Your task to perform on an android device: Open the web browser Image 0: 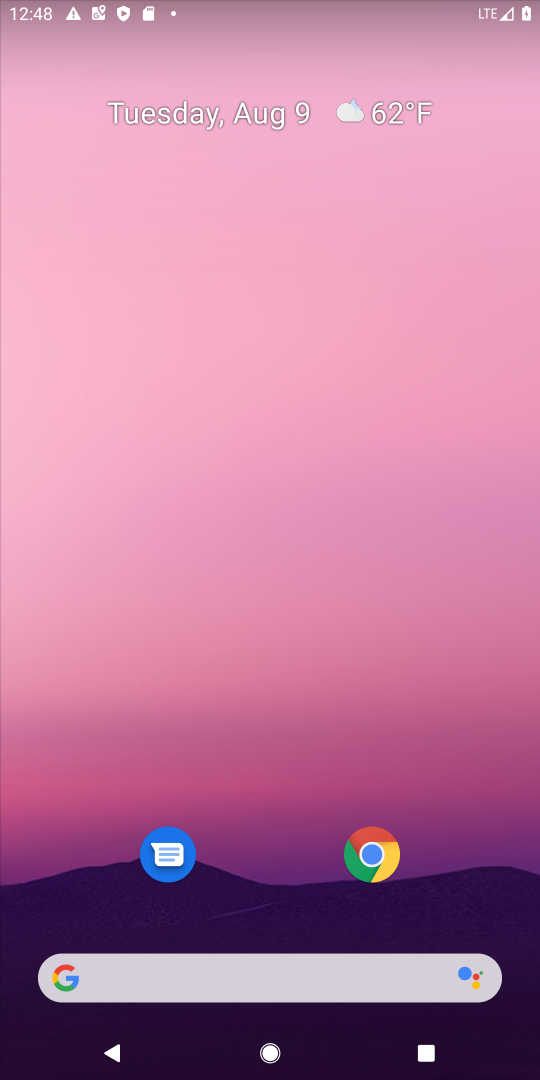
Step 0: click (387, 856)
Your task to perform on an android device: Open the web browser Image 1: 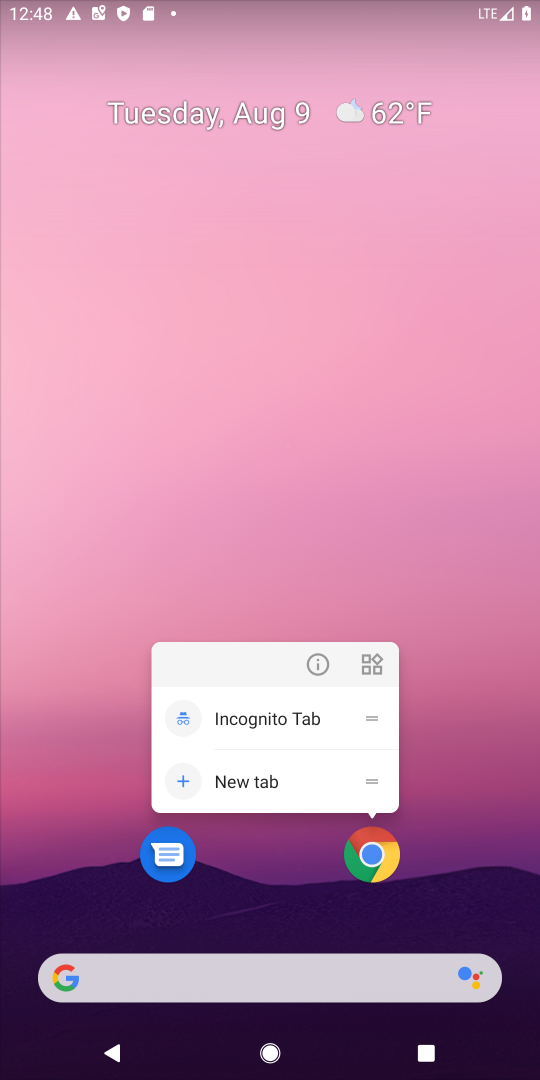
Step 1: click (373, 847)
Your task to perform on an android device: Open the web browser Image 2: 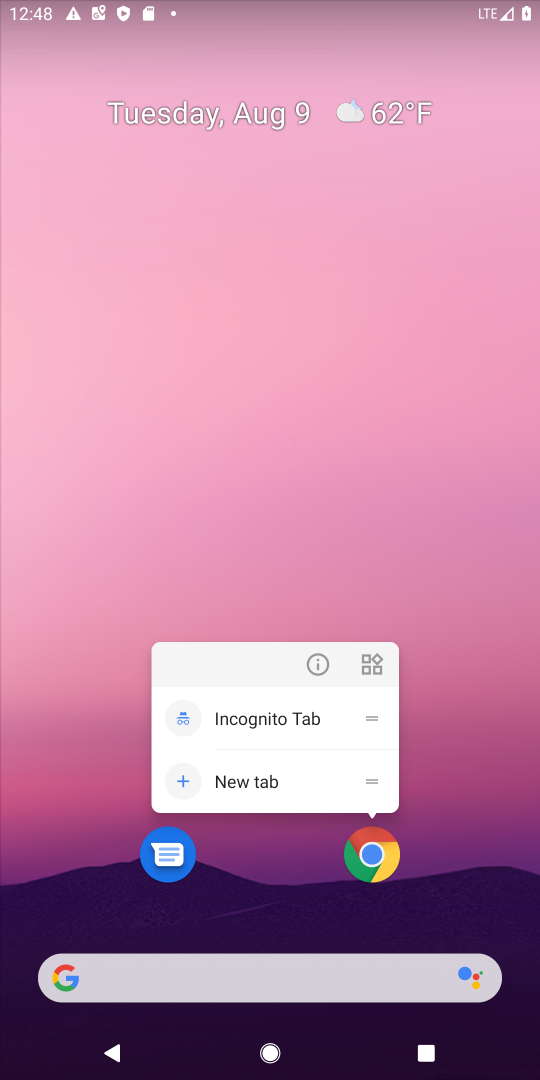
Step 2: click (372, 850)
Your task to perform on an android device: Open the web browser Image 3: 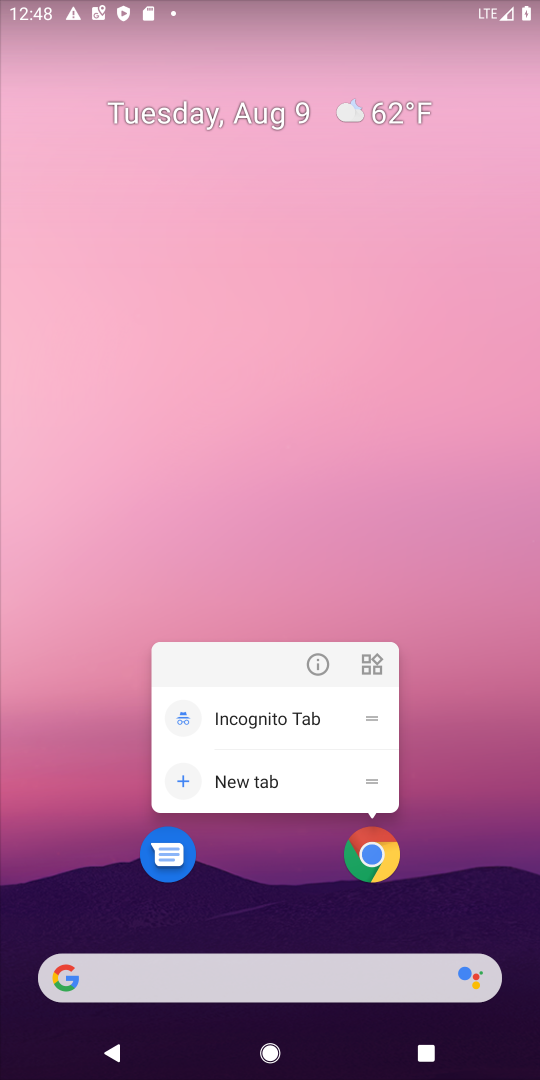
Step 3: click (375, 856)
Your task to perform on an android device: Open the web browser Image 4: 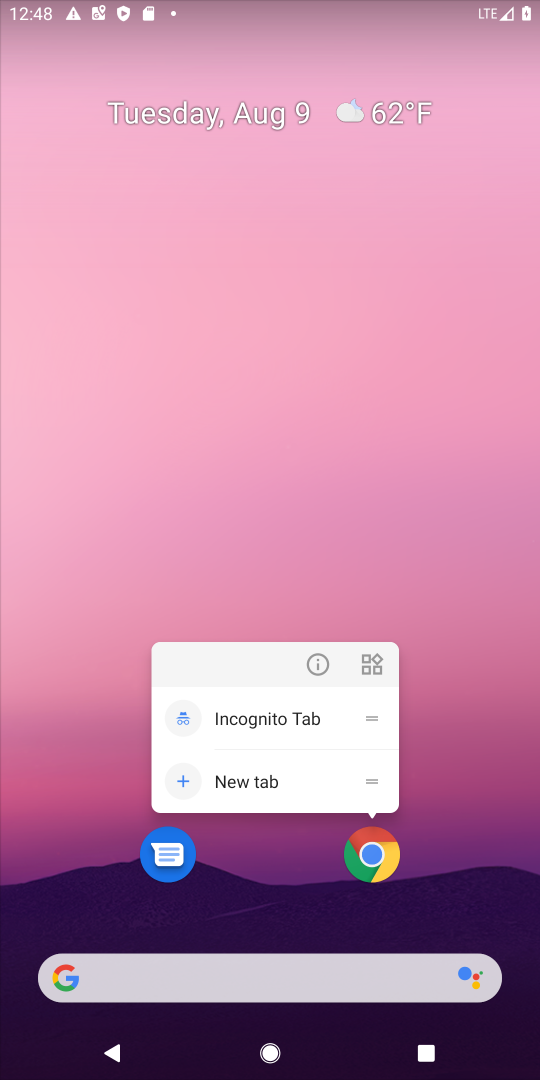
Step 4: click (378, 875)
Your task to perform on an android device: Open the web browser Image 5: 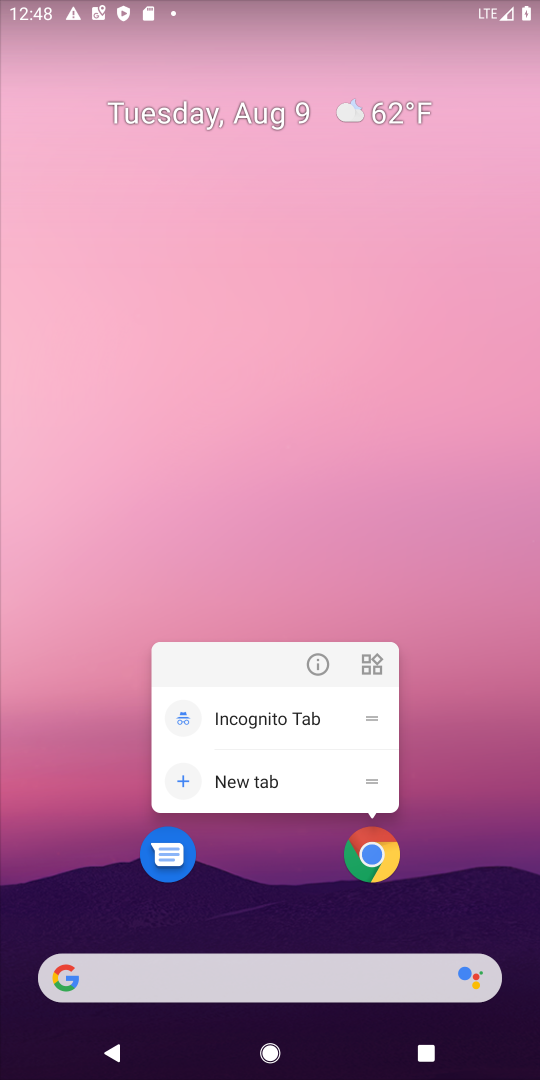
Step 5: click (373, 848)
Your task to perform on an android device: Open the web browser Image 6: 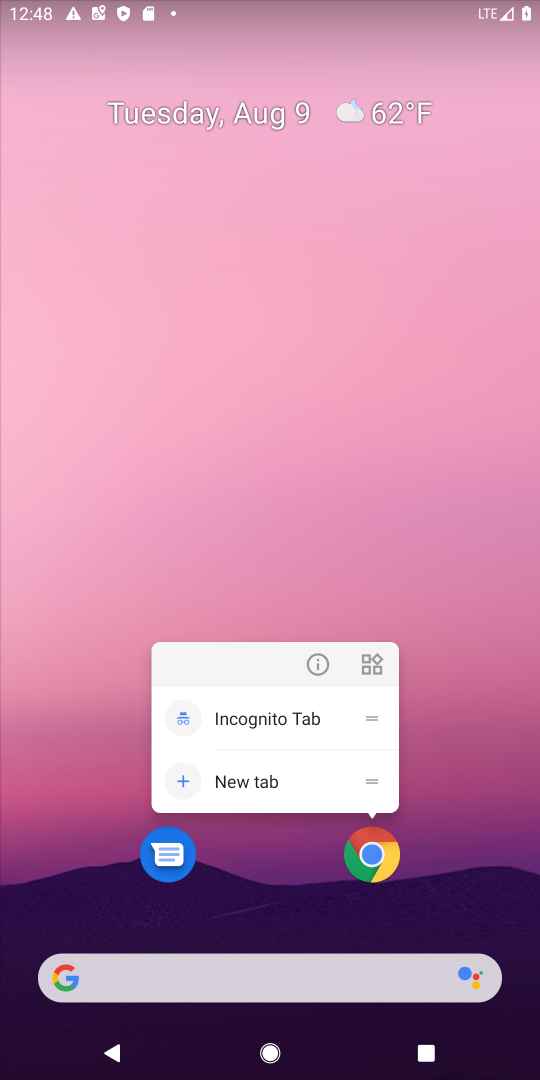
Step 6: click (375, 855)
Your task to perform on an android device: Open the web browser Image 7: 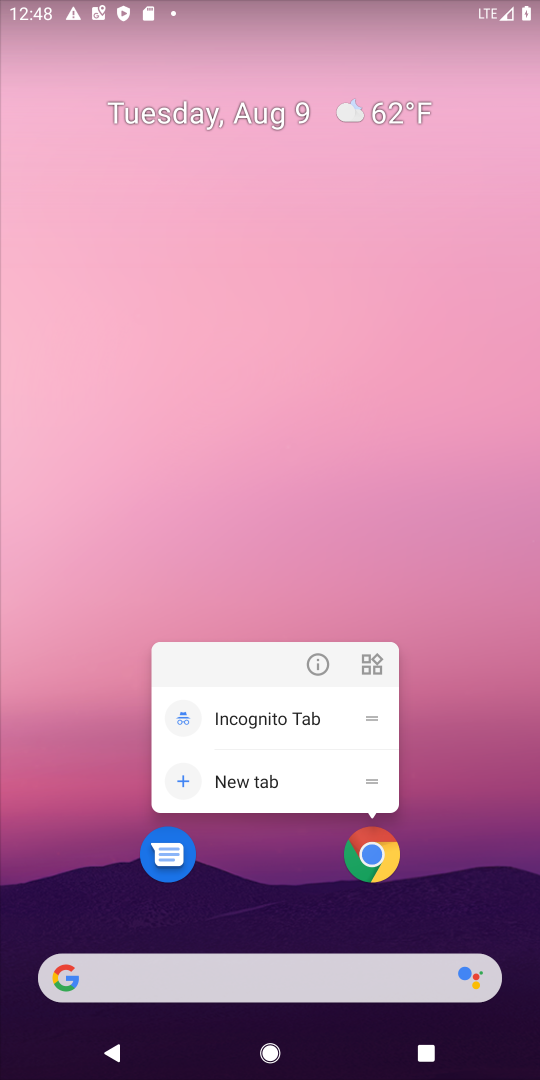
Step 7: click (380, 863)
Your task to perform on an android device: Open the web browser Image 8: 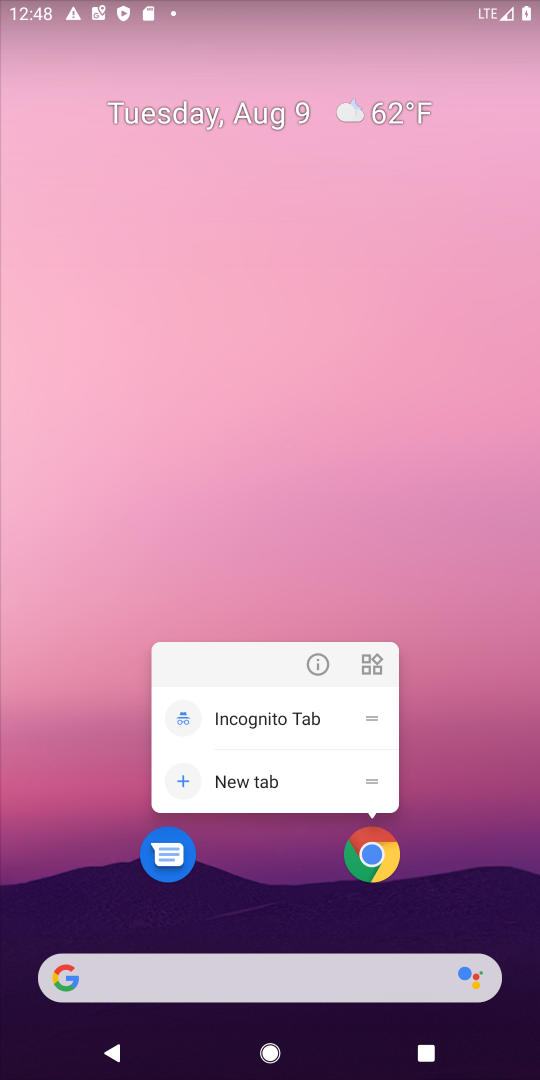
Step 8: click (367, 852)
Your task to perform on an android device: Open the web browser Image 9: 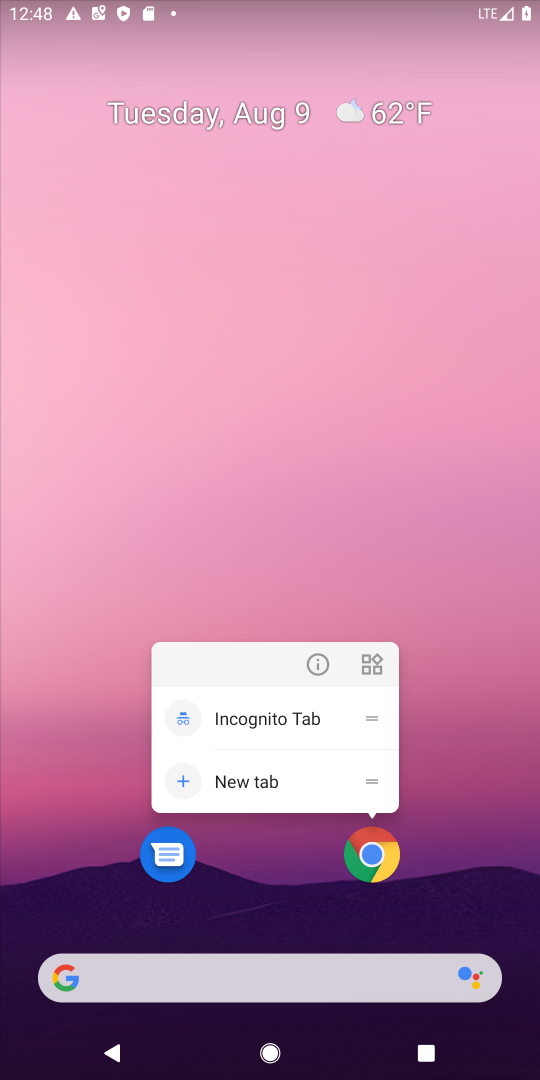
Step 9: click (304, 888)
Your task to perform on an android device: Open the web browser Image 10: 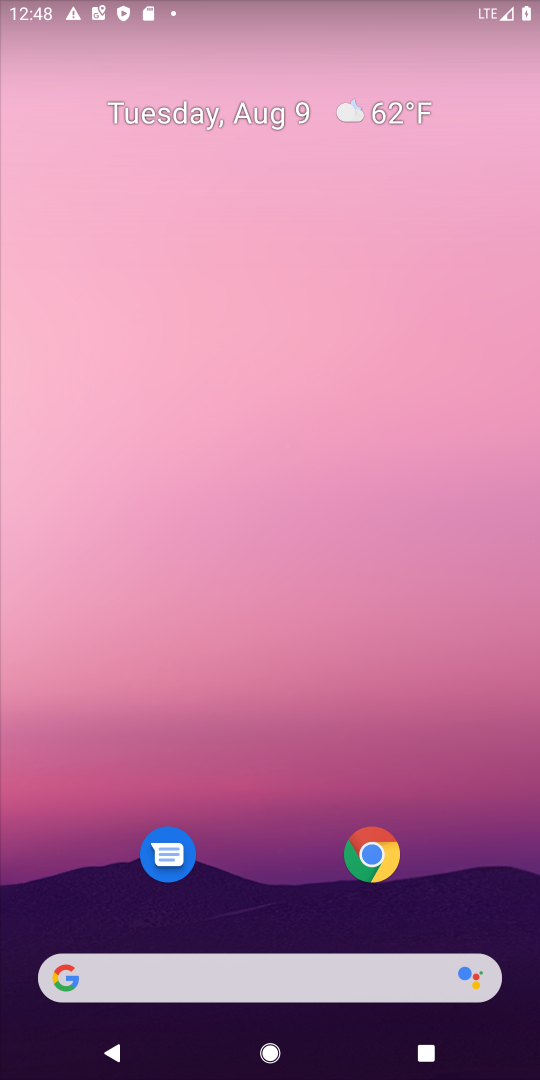
Step 10: drag from (255, 920) to (276, 13)
Your task to perform on an android device: Open the web browser Image 11: 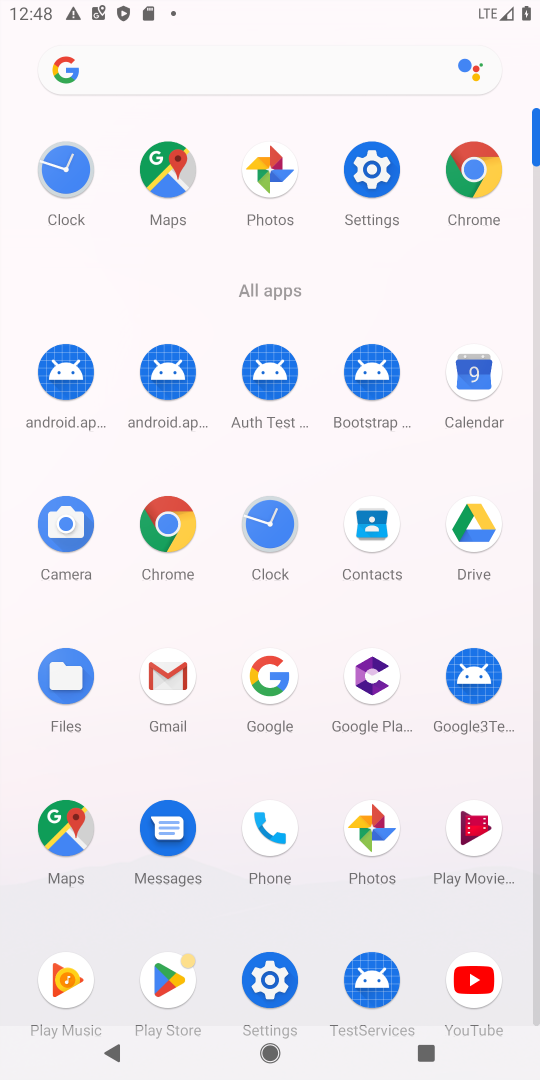
Step 11: click (484, 171)
Your task to perform on an android device: Open the web browser Image 12: 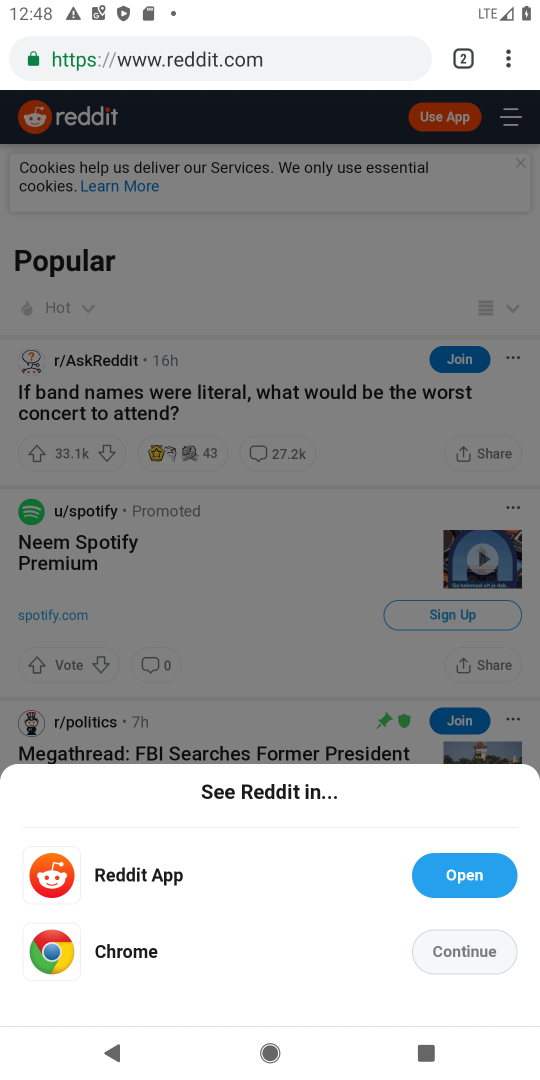
Step 12: task complete